Your task to perform on an android device: Open calendar and show me the third week of next month Image 0: 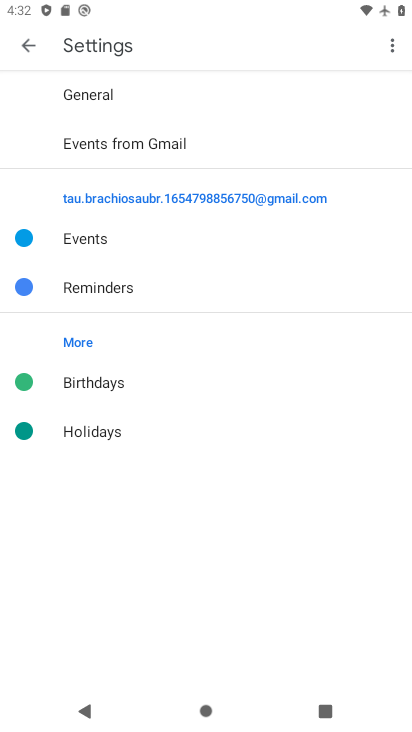
Step 0: press home button
Your task to perform on an android device: Open calendar and show me the third week of next month Image 1: 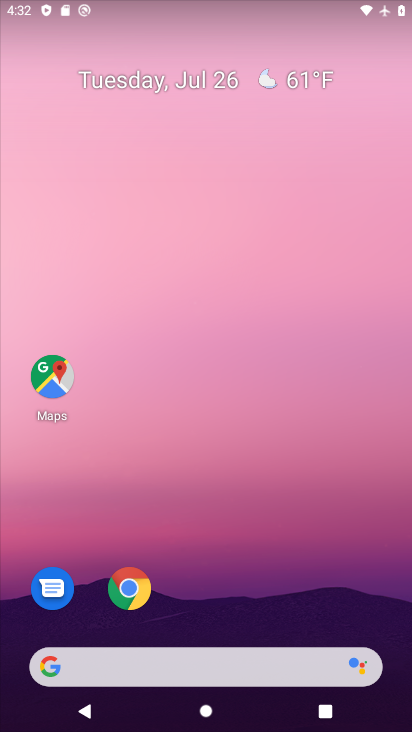
Step 1: drag from (260, 642) to (405, 524)
Your task to perform on an android device: Open calendar and show me the third week of next month Image 2: 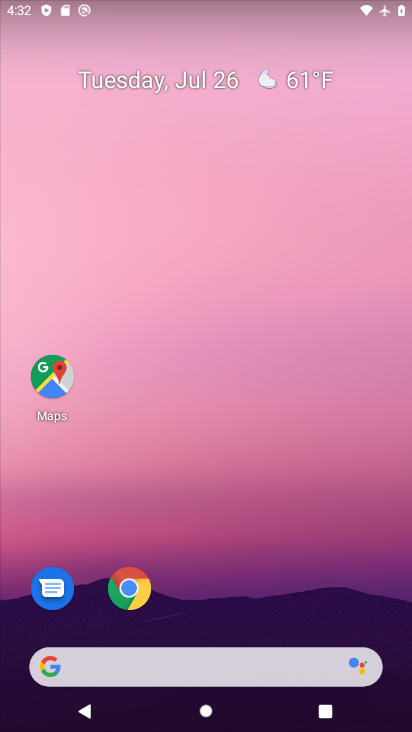
Step 2: drag from (216, 605) to (241, 13)
Your task to perform on an android device: Open calendar and show me the third week of next month Image 3: 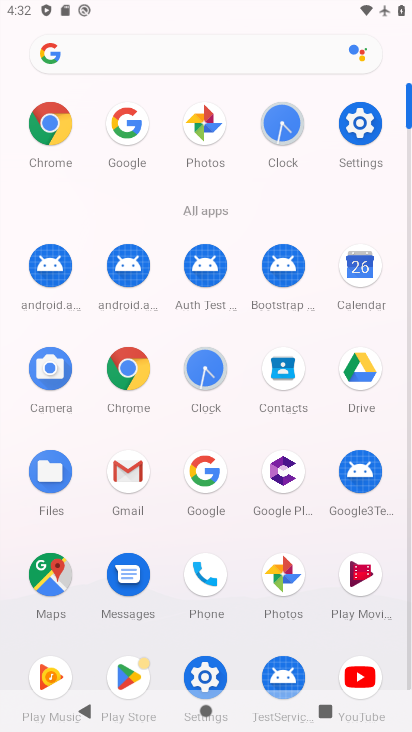
Step 3: click (364, 272)
Your task to perform on an android device: Open calendar and show me the third week of next month Image 4: 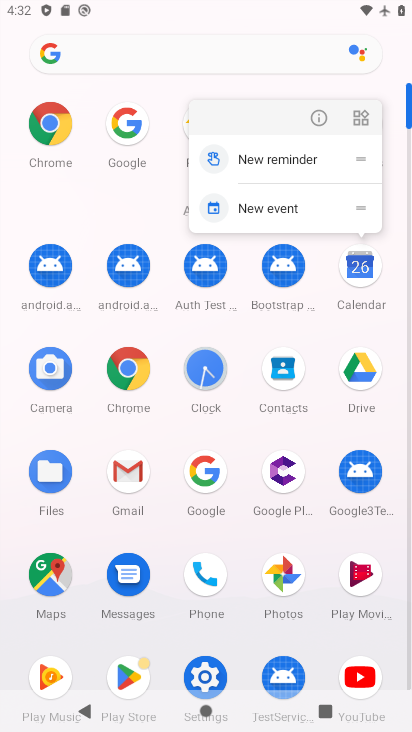
Step 4: click (365, 275)
Your task to perform on an android device: Open calendar and show me the third week of next month Image 5: 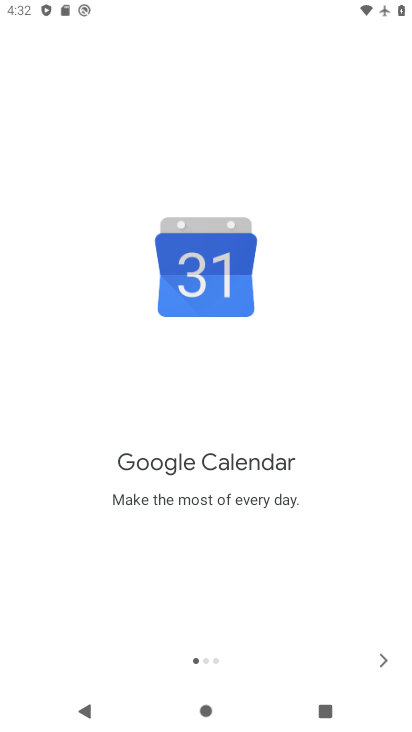
Step 5: click (380, 658)
Your task to perform on an android device: Open calendar and show me the third week of next month Image 6: 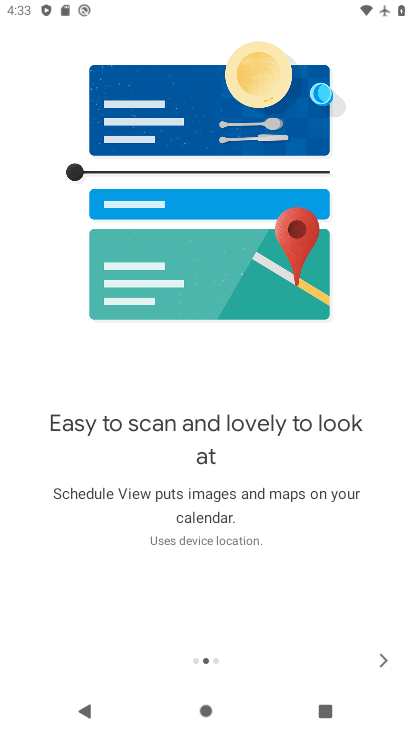
Step 6: click (376, 661)
Your task to perform on an android device: Open calendar and show me the third week of next month Image 7: 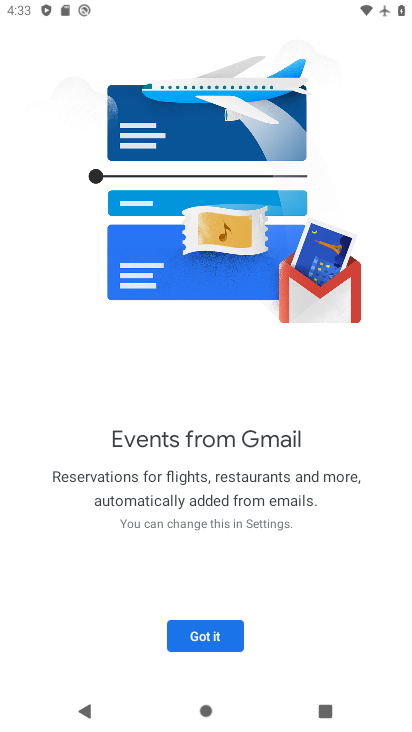
Step 7: click (218, 627)
Your task to perform on an android device: Open calendar and show me the third week of next month Image 8: 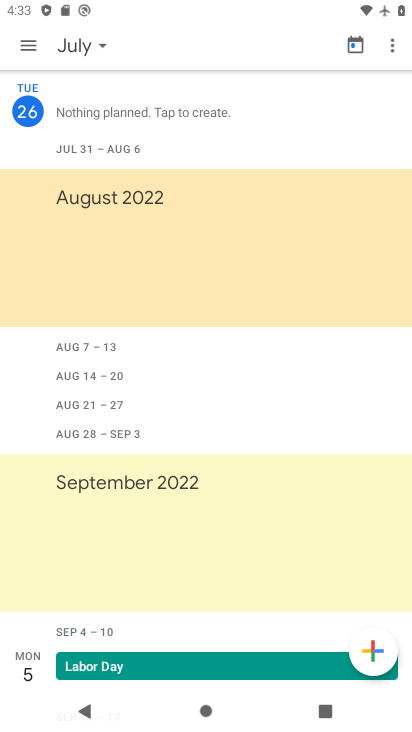
Step 8: click (83, 56)
Your task to perform on an android device: Open calendar and show me the third week of next month Image 9: 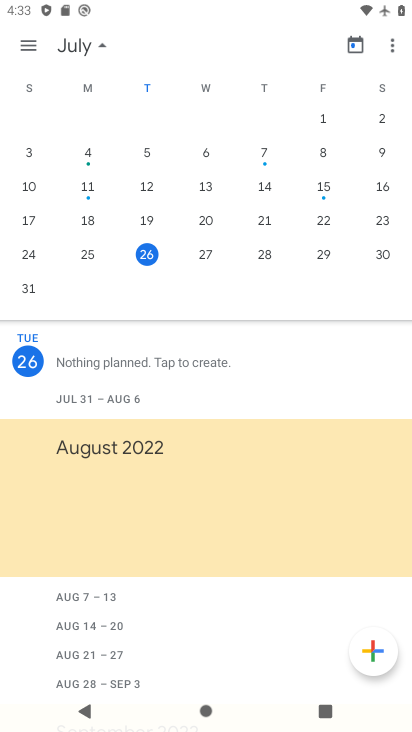
Step 9: drag from (304, 175) to (0, 267)
Your task to perform on an android device: Open calendar and show me the third week of next month Image 10: 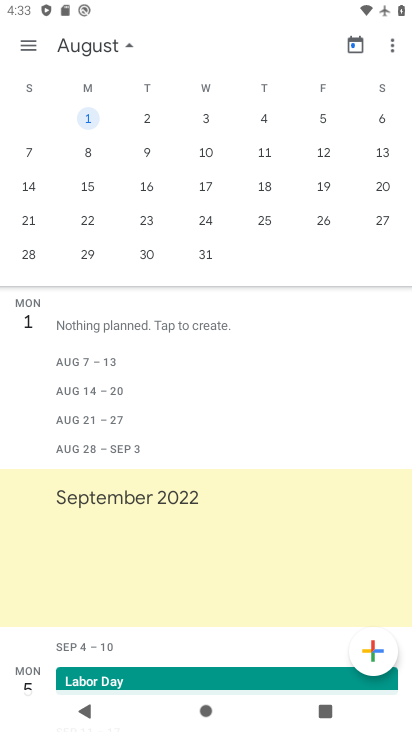
Step 10: click (29, 217)
Your task to perform on an android device: Open calendar and show me the third week of next month Image 11: 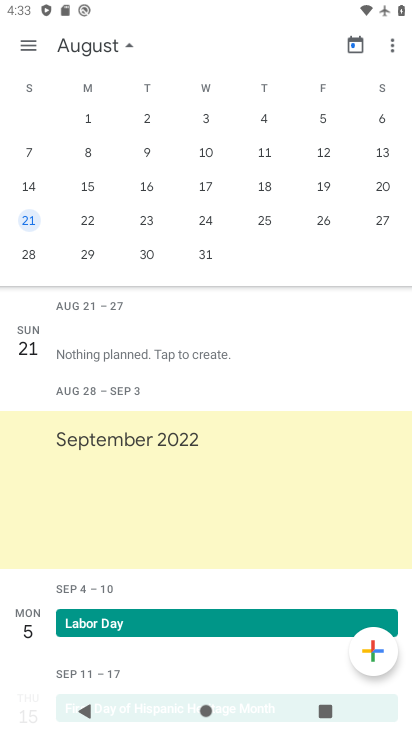
Step 11: task complete